Your task to perform on an android device: Open my contact list Image 0: 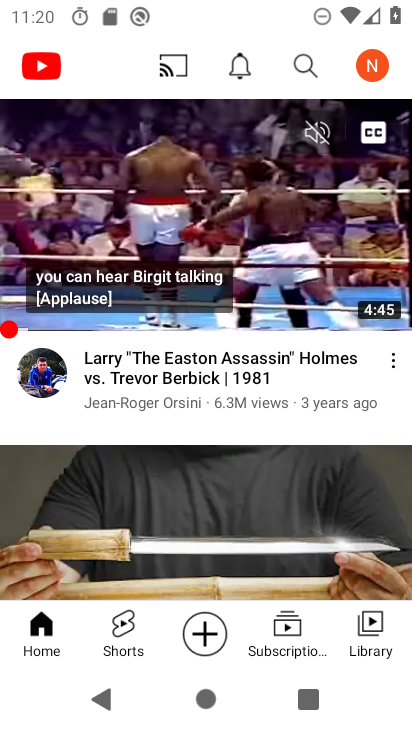
Step 0: press home button
Your task to perform on an android device: Open my contact list Image 1: 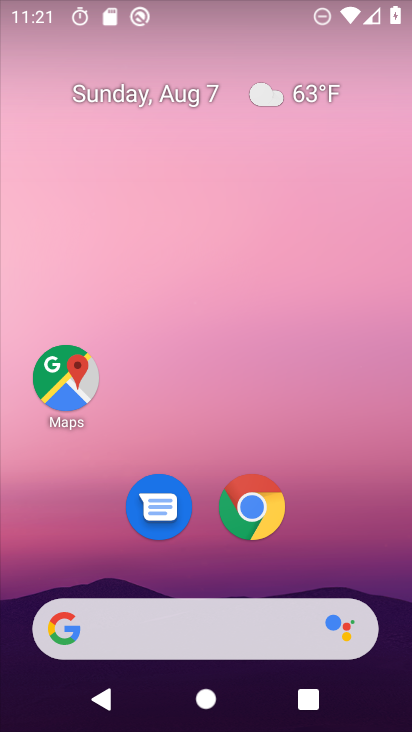
Step 1: drag from (256, 317) to (251, 34)
Your task to perform on an android device: Open my contact list Image 2: 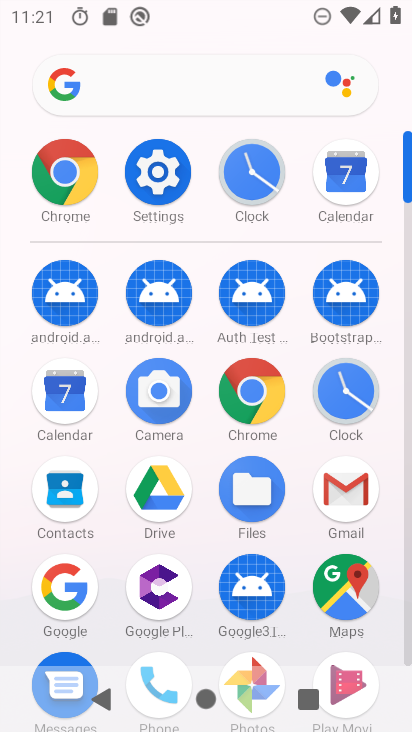
Step 2: drag from (201, 617) to (210, 323)
Your task to perform on an android device: Open my contact list Image 3: 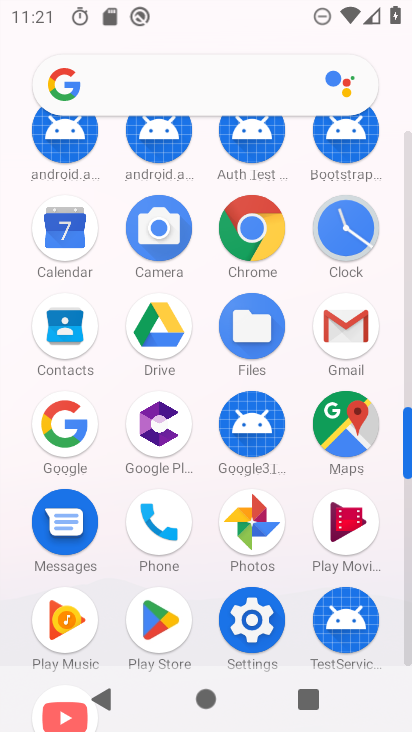
Step 3: click (76, 341)
Your task to perform on an android device: Open my contact list Image 4: 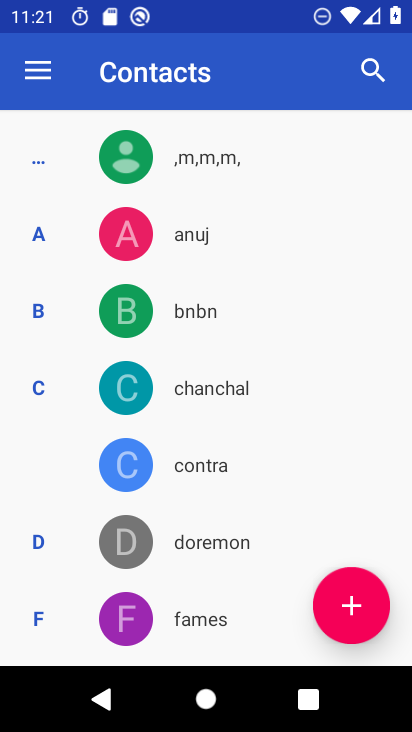
Step 4: task complete